Your task to perform on an android device: Open Chrome and go to the settings page Image 0: 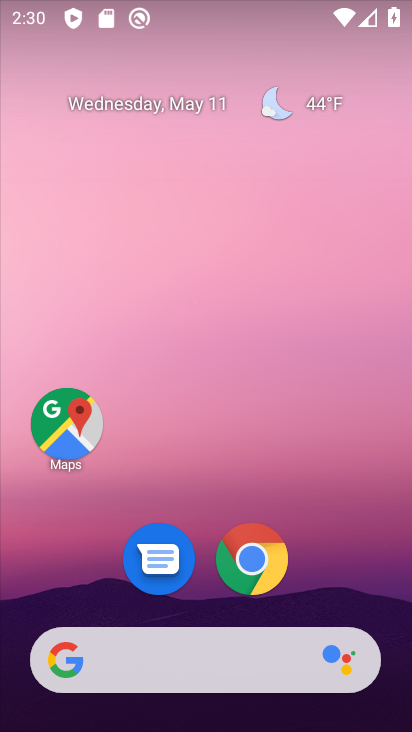
Step 0: click (250, 553)
Your task to perform on an android device: Open Chrome and go to the settings page Image 1: 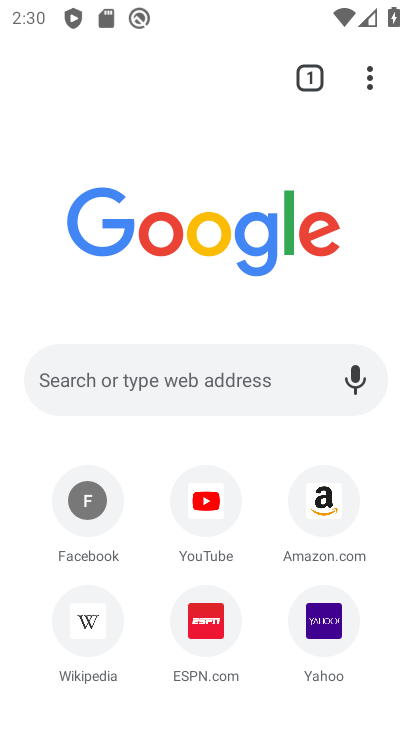
Step 1: click (363, 74)
Your task to perform on an android device: Open Chrome and go to the settings page Image 2: 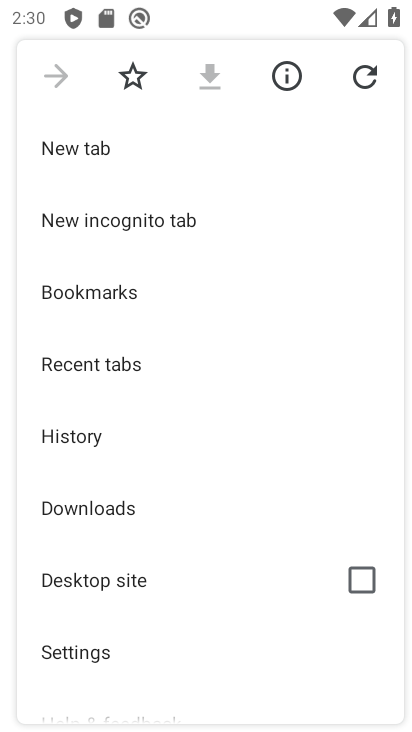
Step 2: click (160, 643)
Your task to perform on an android device: Open Chrome and go to the settings page Image 3: 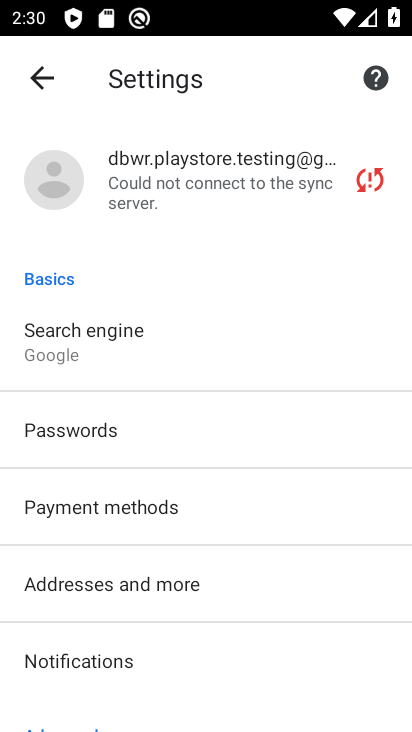
Step 3: task complete